Your task to perform on an android device: check data usage Image 0: 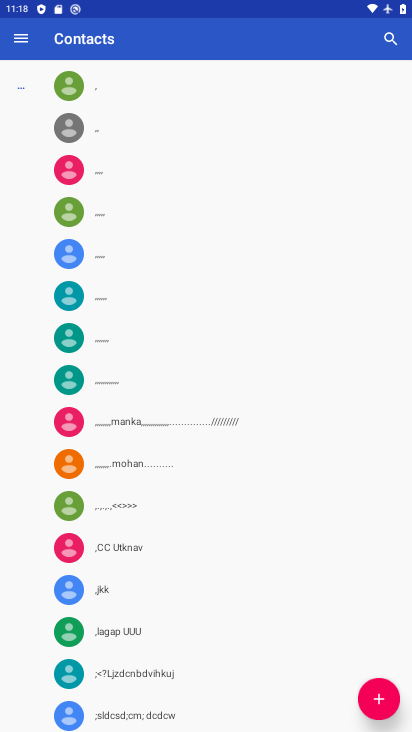
Step 0: press back button
Your task to perform on an android device: check data usage Image 1: 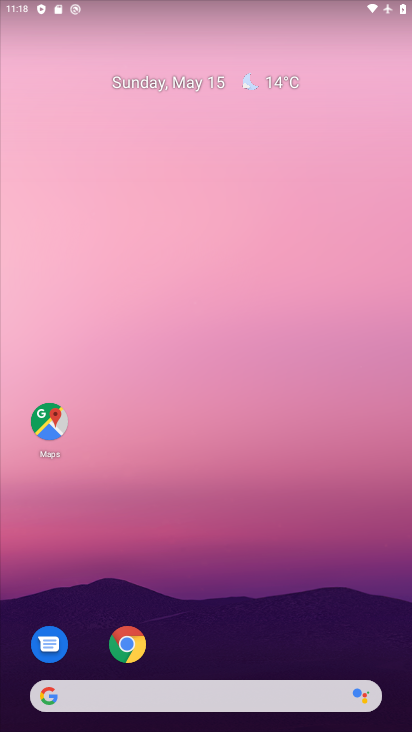
Step 1: drag from (200, 654) to (86, 120)
Your task to perform on an android device: check data usage Image 2: 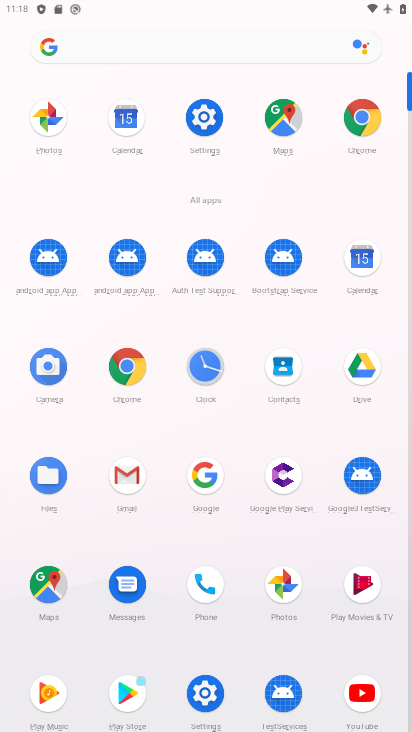
Step 2: click (204, 697)
Your task to perform on an android device: check data usage Image 3: 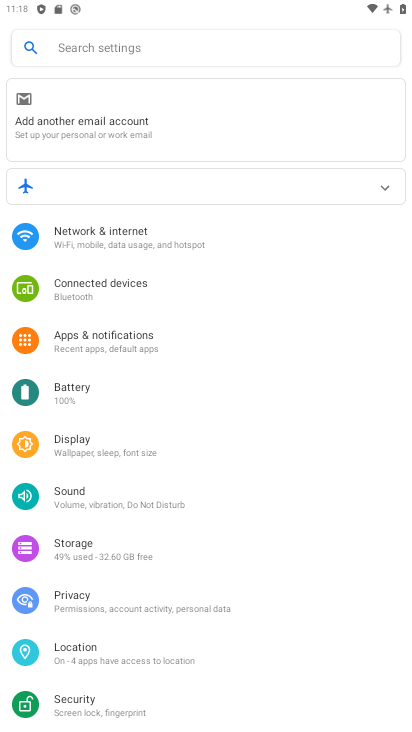
Step 3: click (137, 244)
Your task to perform on an android device: check data usage Image 4: 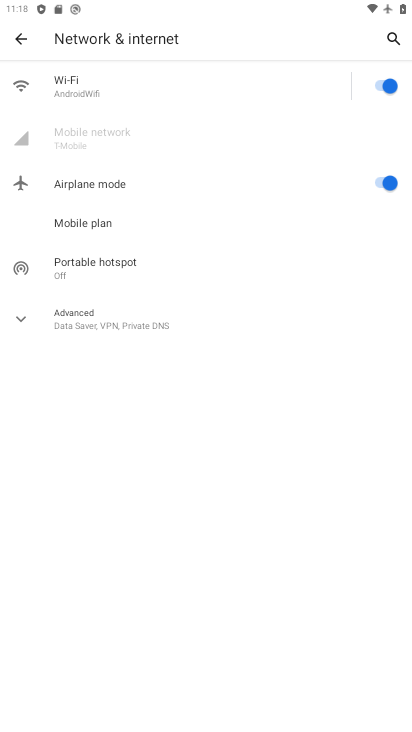
Step 4: click (174, 86)
Your task to perform on an android device: check data usage Image 5: 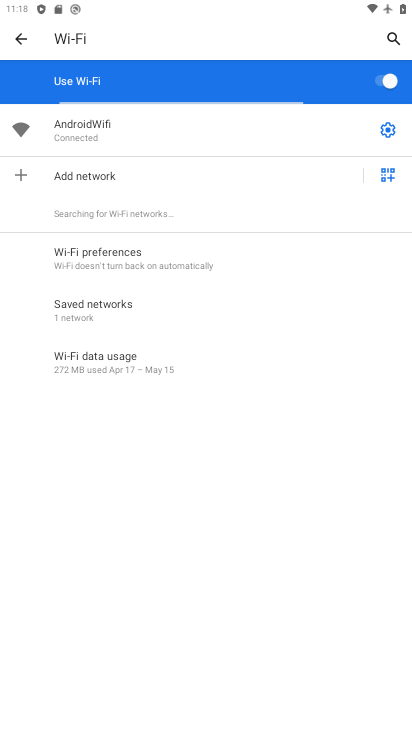
Step 5: task complete